Your task to perform on an android device: check google app version Image 0: 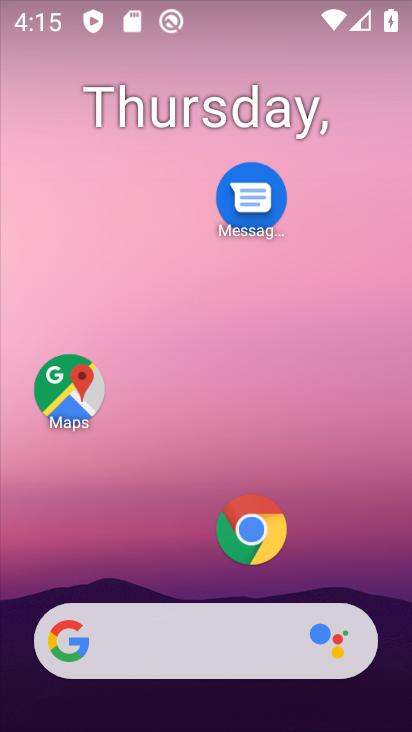
Step 0: drag from (183, 468) to (222, 130)
Your task to perform on an android device: check google app version Image 1: 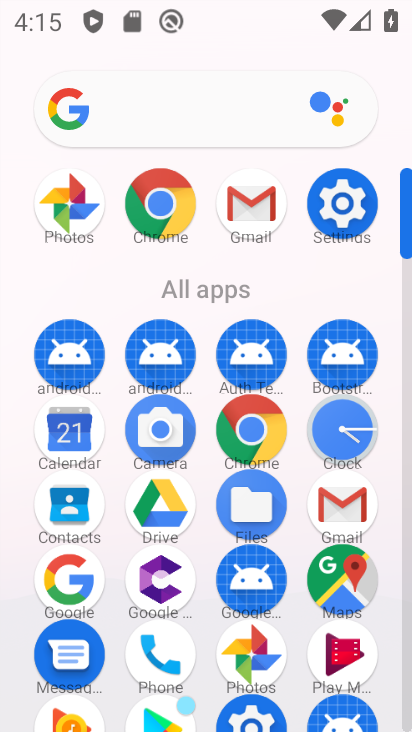
Step 1: click (69, 582)
Your task to perform on an android device: check google app version Image 2: 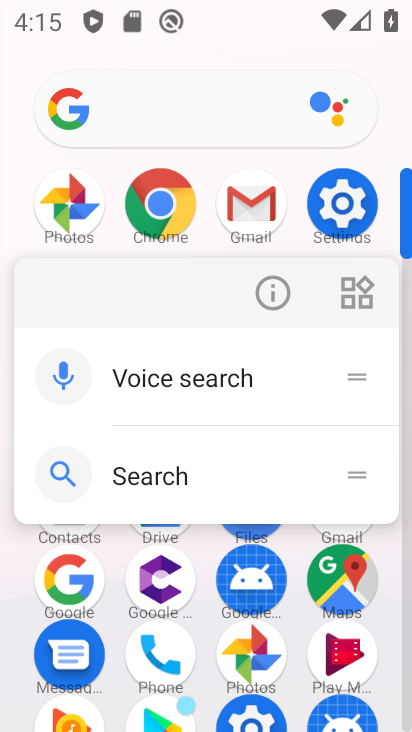
Step 2: click (281, 293)
Your task to perform on an android device: check google app version Image 3: 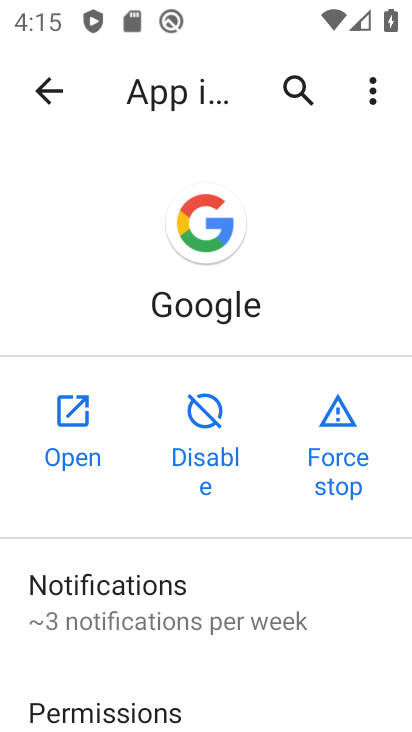
Step 3: drag from (211, 553) to (326, 56)
Your task to perform on an android device: check google app version Image 4: 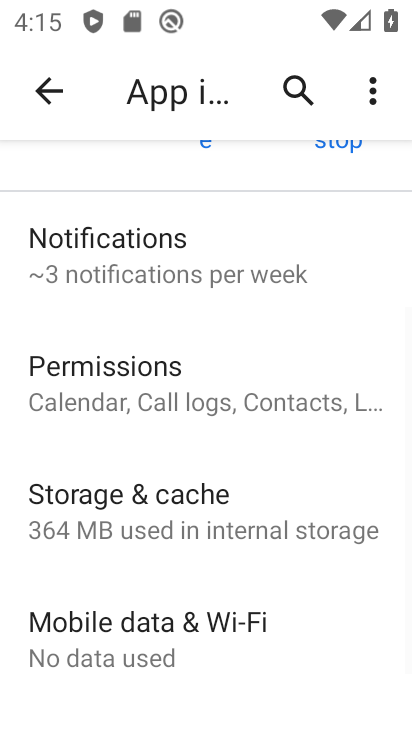
Step 4: drag from (146, 643) to (252, 91)
Your task to perform on an android device: check google app version Image 5: 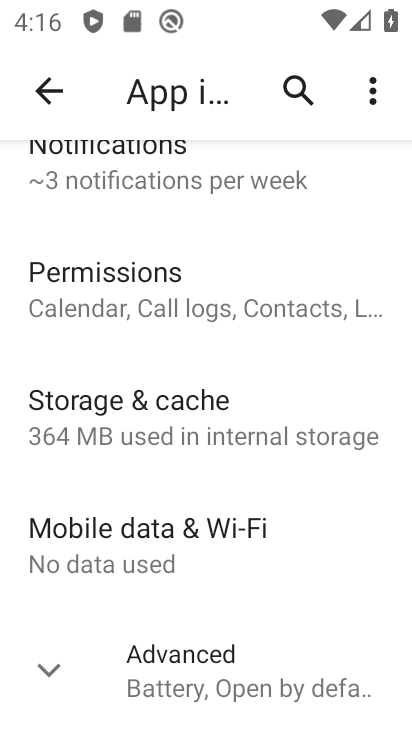
Step 5: drag from (222, 660) to (306, 53)
Your task to perform on an android device: check google app version Image 6: 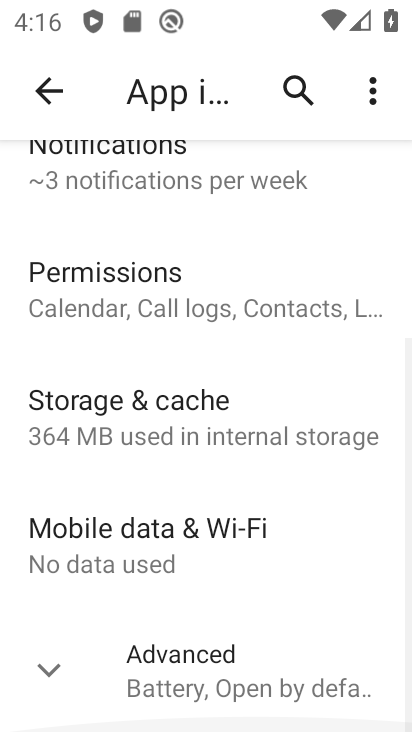
Step 6: click (152, 673)
Your task to perform on an android device: check google app version Image 7: 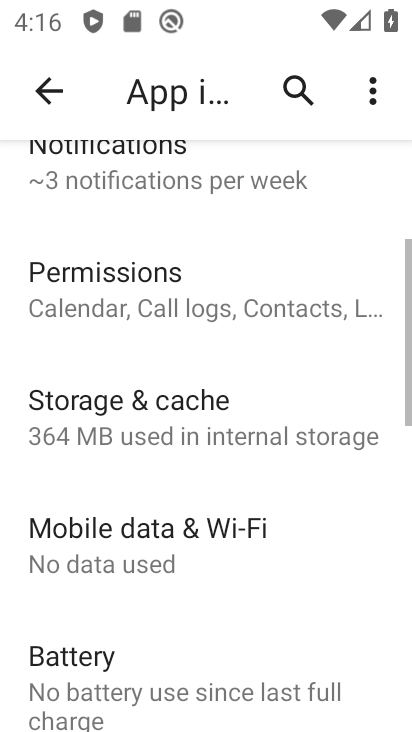
Step 7: click (334, 111)
Your task to perform on an android device: check google app version Image 8: 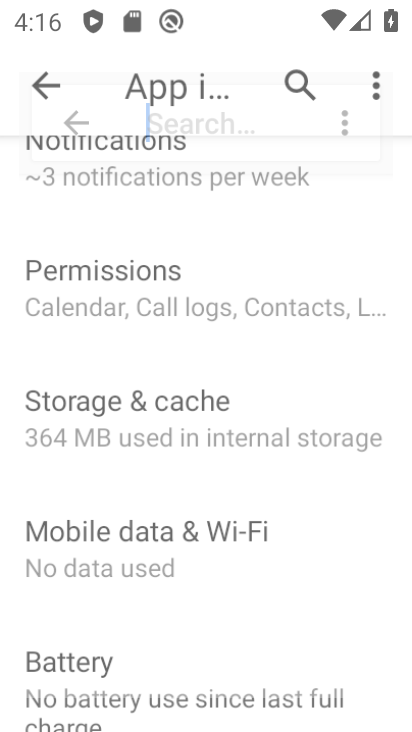
Step 8: drag from (176, 643) to (306, 109)
Your task to perform on an android device: check google app version Image 9: 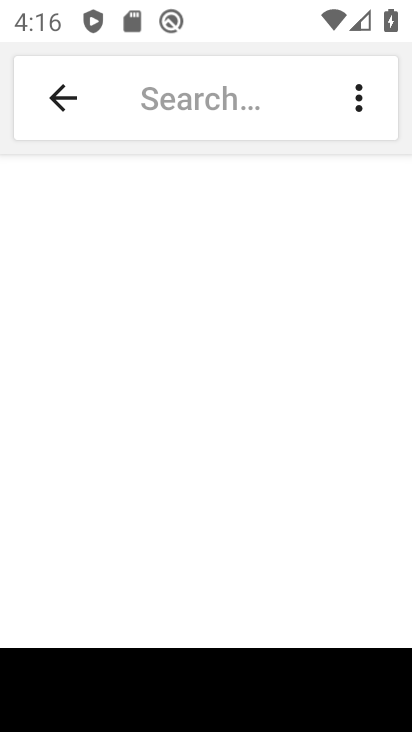
Step 9: click (44, 84)
Your task to perform on an android device: check google app version Image 10: 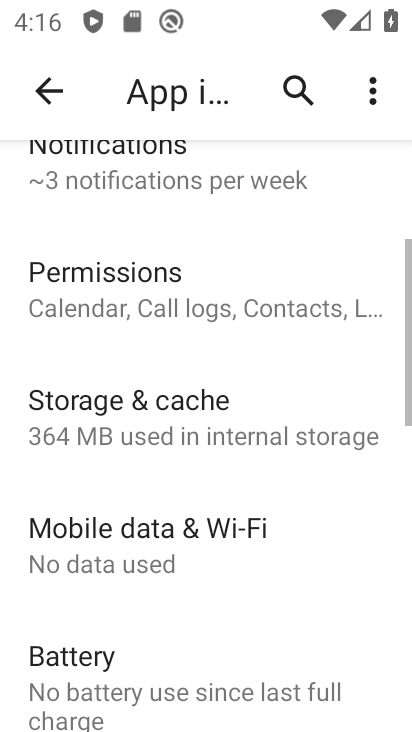
Step 10: task complete